Your task to perform on an android device: Open the phone app and click the voicemail tab. Image 0: 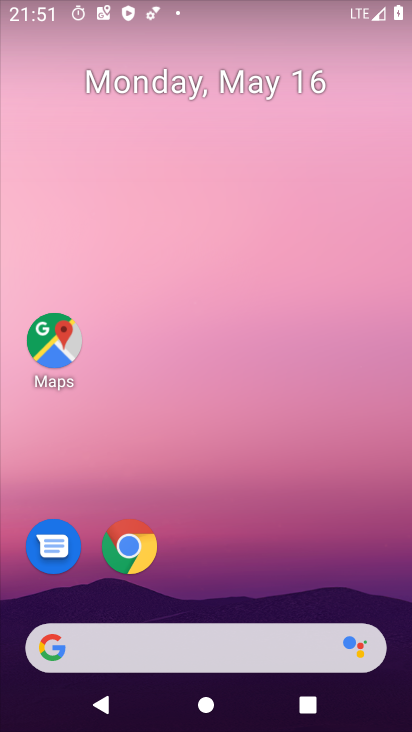
Step 0: drag from (336, 676) to (399, 91)
Your task to perform on an android device: Open the phone app and click the voicemail tab. Image 1: 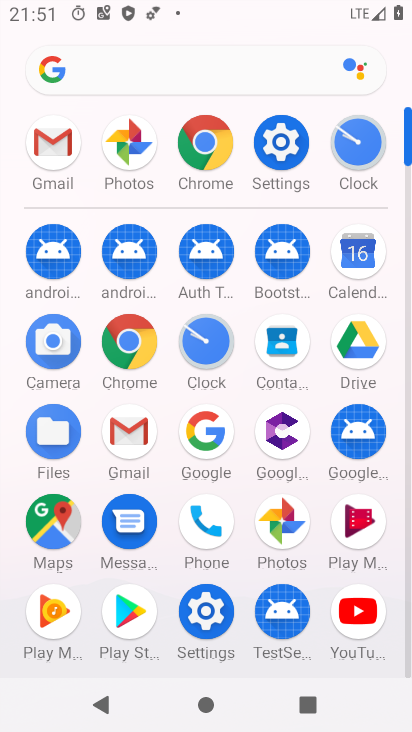
Step 1: click (195, 529)
Your task to perform on an android device: Open the phone app and click the voicemail tab. Image 2: 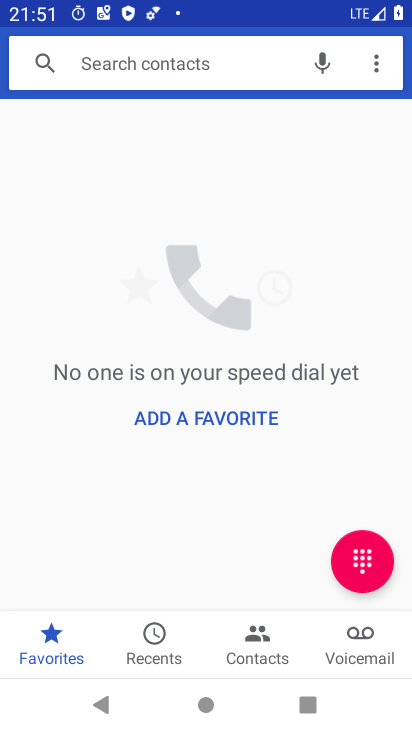
Step 2: click (348, 633)
Your task to perform on an android device: Open the phone app and click the voicemail tab. Image 3: 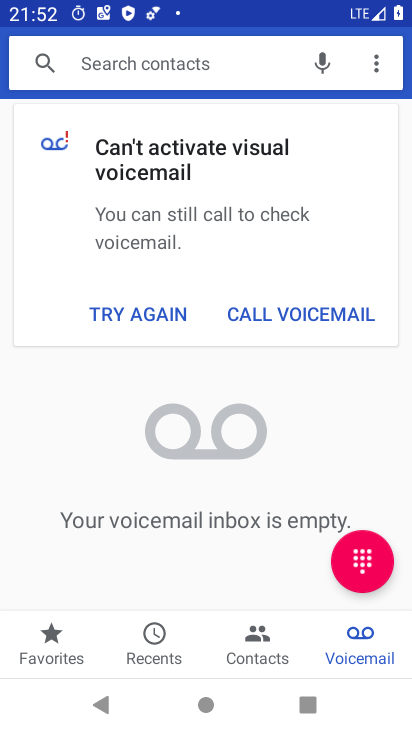
Step 3: task complete